Your task to perform on an android device: What's the weather today? Image 0: 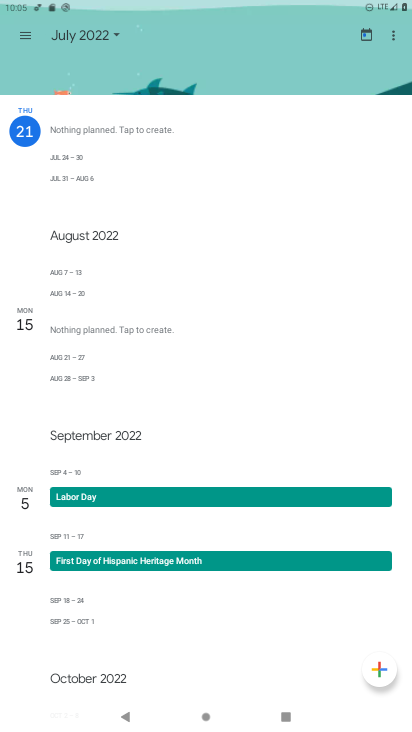
Step 0: press home button
Your task to perform on an android device: What's the weather today? Image 1: 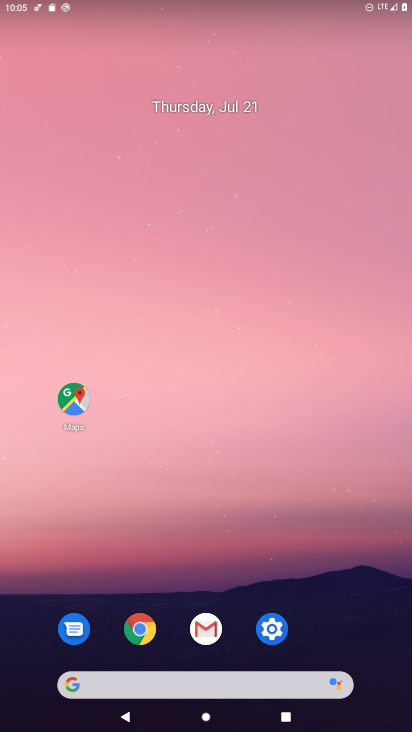
Step 1: click (207, 691)
Your task to perform on an android device: What's the weather today? Image 2: 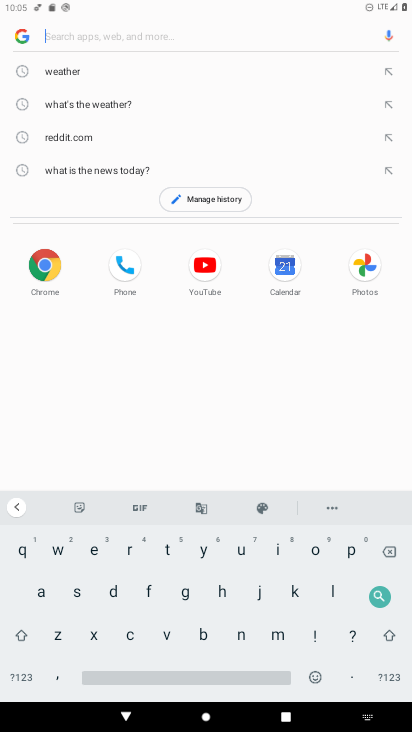
Step 2: click (105, 172)
Your task to perform on an android device: What's the weather today? Image 3: 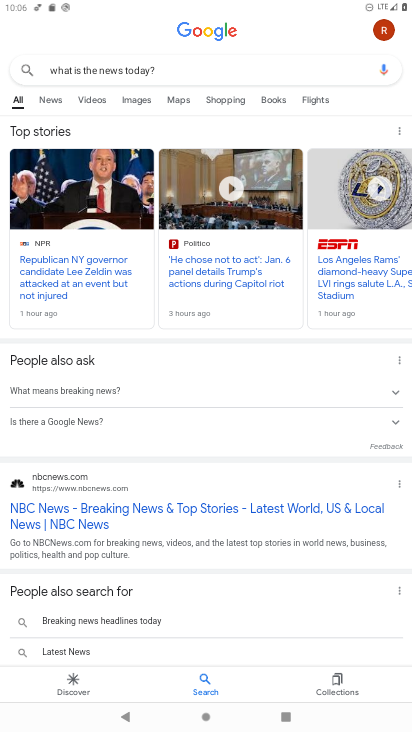
Step 3: task complete